Your task to perform on an android device: Go to ESPN.com Image 0: 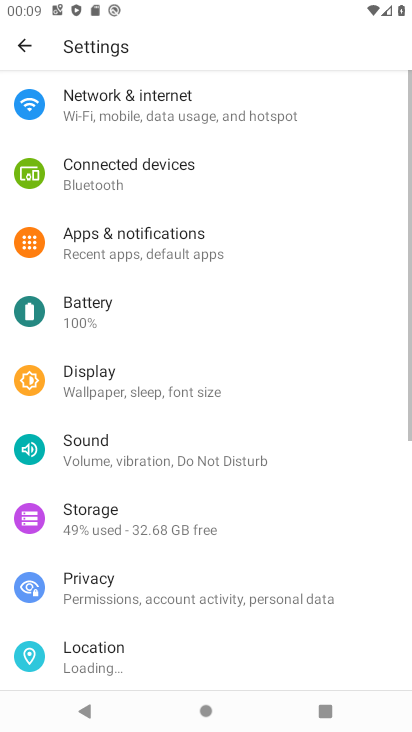
Step 0: press home button
Your task to perform on an android device: Go to ESPN.com Image 1: 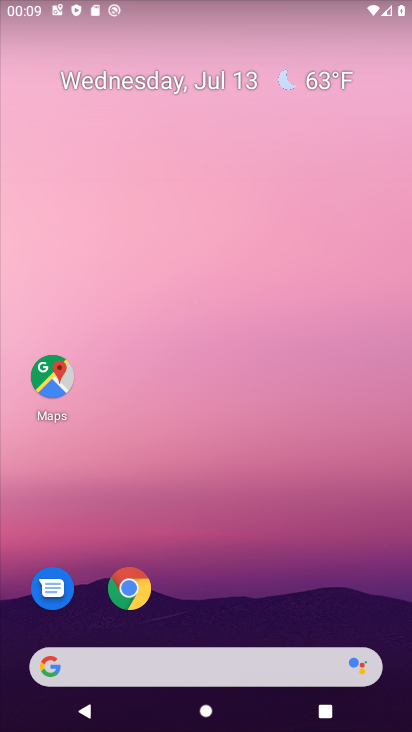
Step 1: click (138, 669)
Your task to perform on an android device: Go to ESPN.com Image 2: 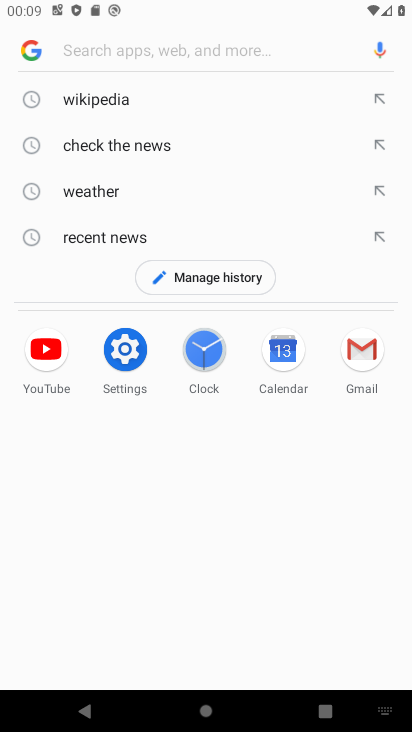
Step 2: type "ESPN.com"
Your task to perform on an android device: Go to ESPN.com Image 3: 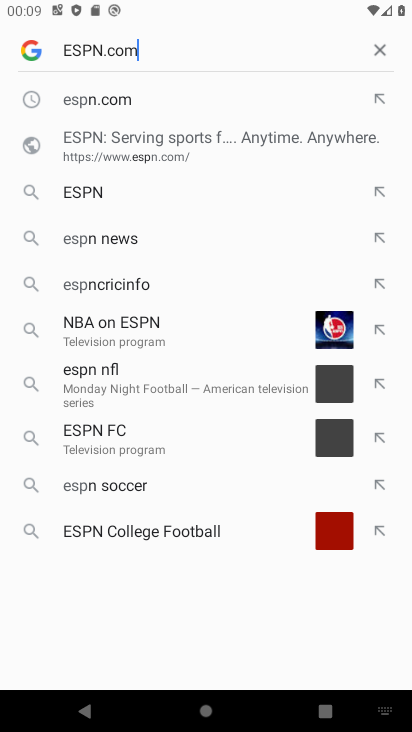
Step 3: type ""
Your task to perform on an android device: Go to ESPN.com Image 4: 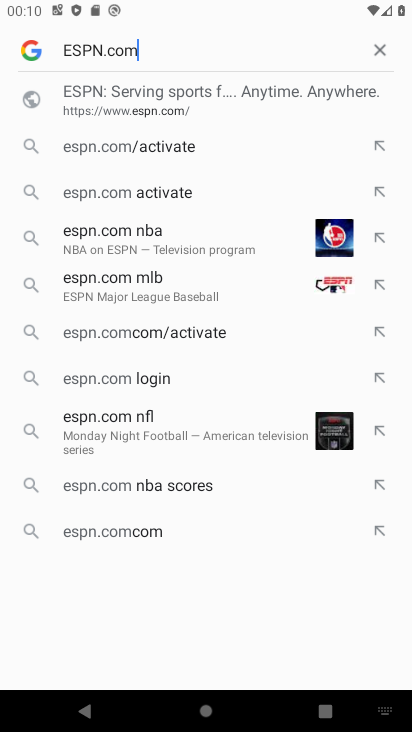
Step 4: task complete